Your task to perform on an android device: Search for Mexican restaurants on Maps Image 0: 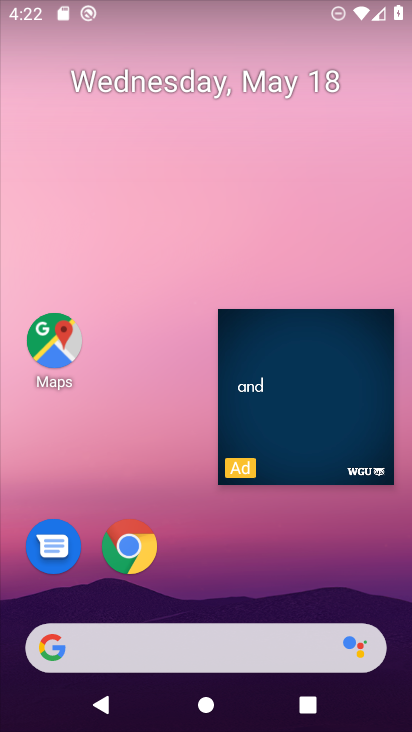
Step 0: click (335, 374)
Your task to perform on an android device: Search for Mexican restaurants on Maps Image 1: 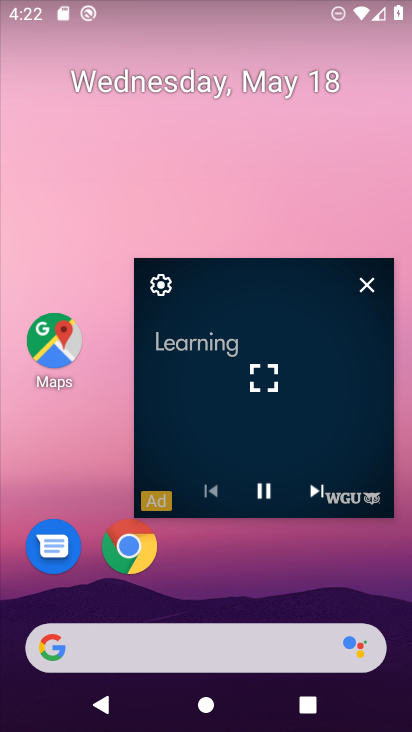
Step 1: click (365, 279)
Your task to perform on an android device: Search for Mexican restaurants on Maps Image 2: 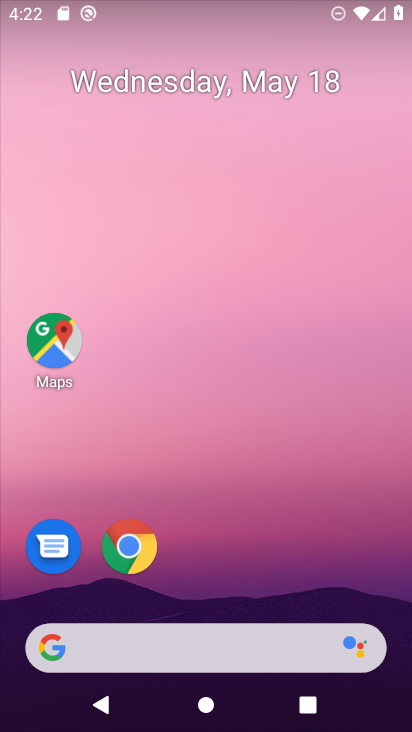
Step 2: click (50, 349)
Your task to perform on an android device: Search for Mexican restaurants on Maps Image 3: 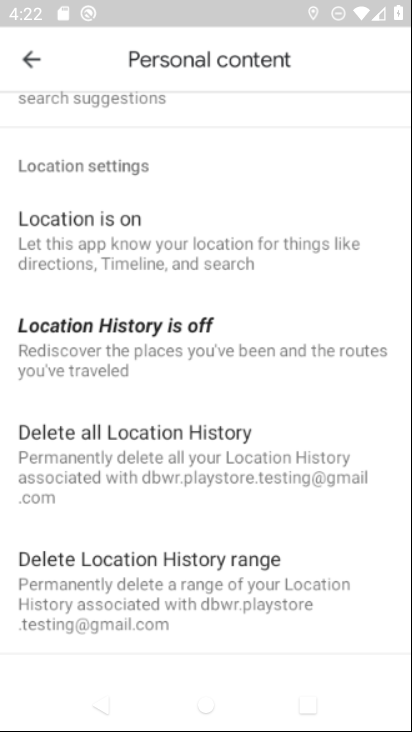
Step 3: click (30, 55)
Your task to perform on an android device: Search for Mexican restaurants on Maps Image 4: 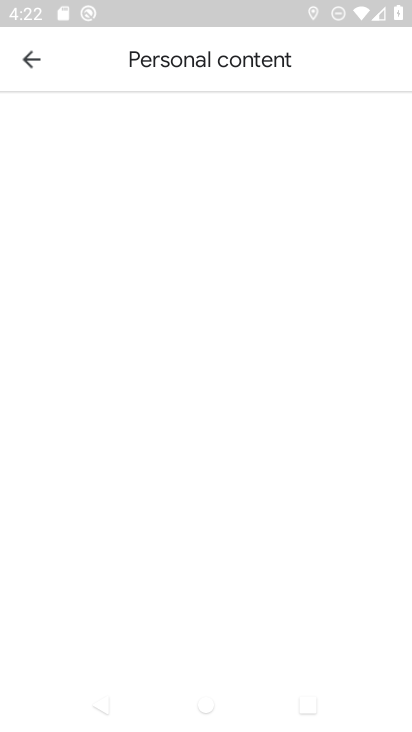
Step 4: click (36, 62)
Your task to perform on an android device: Search for Mexican restaurants on Maps Image 5: 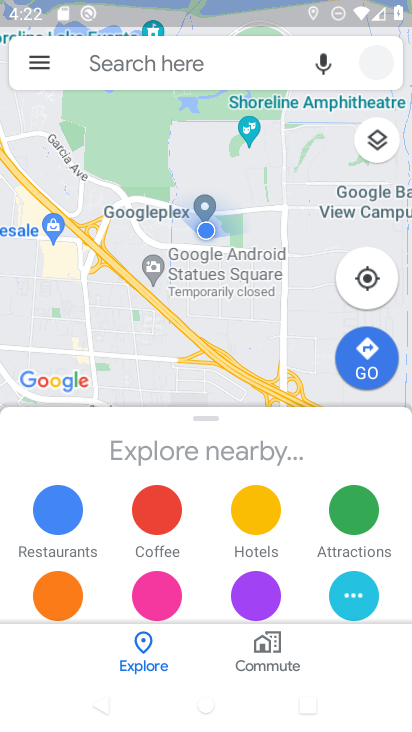
Step 5: click (44, 65)
Your task to perform on an android device: Search for Mexican restaurants on Maps Image 6: 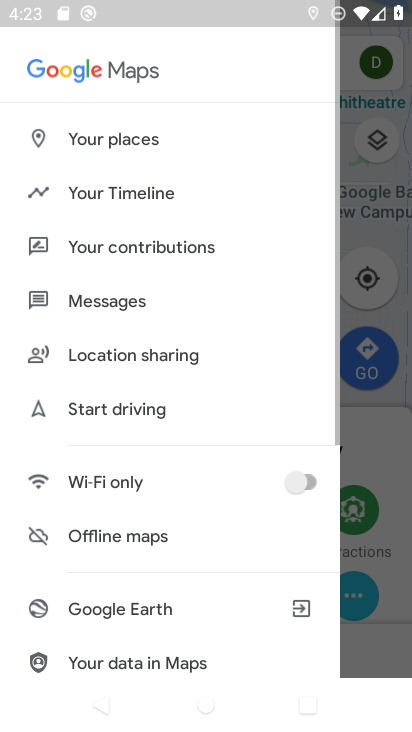
Step 6: click (163, 67)
Your task to perform on an android device: Search for Mexican restaurants on Maps Image 7: 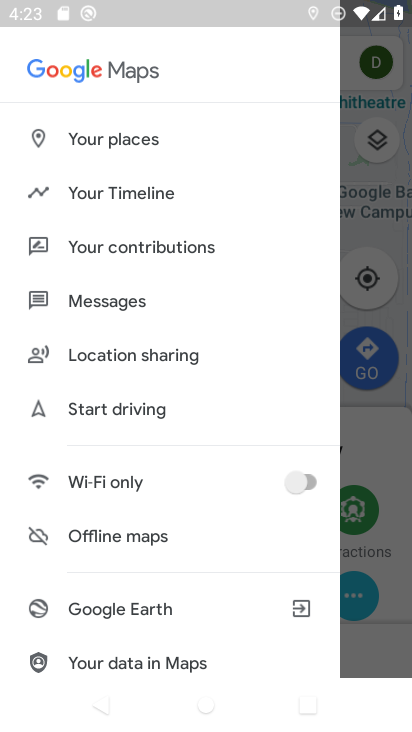
Step 7: click (382, 197)
Your task to perform on an android device: Search for Mexican restaurants on Maps Image 8: 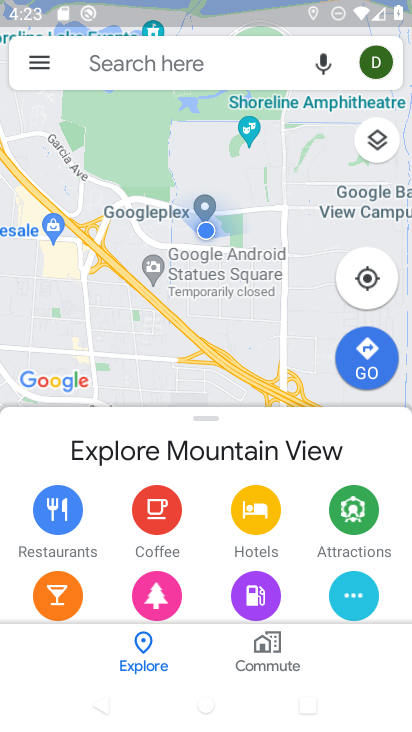
Step 8: click (185, 63)
Your task to perform on an android device: Search for Mexican restaurants on Maps Image 9: 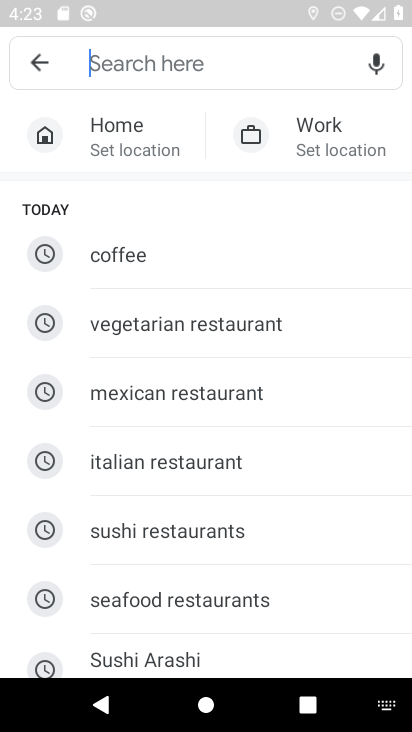
Step 9: type "mexican restaurants"
Your task to perform on an android device: Search for Mexican restaurants on Maps Image 10: 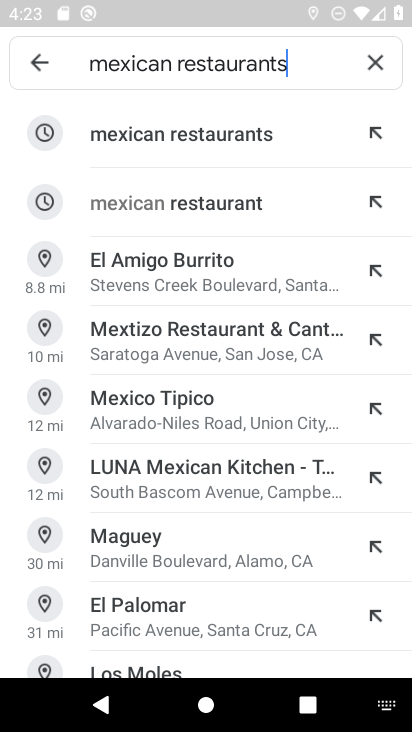
Step 10: click (200, 142)
Your task to perform on an android device: Search for Mexican restaurants on Maps Image 11: 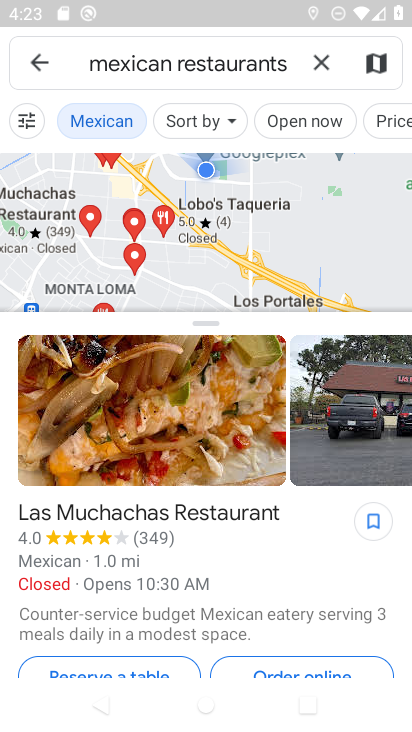
Step 11: task complete